Your task to perform on an android device: Go to wifi settings Image 0: 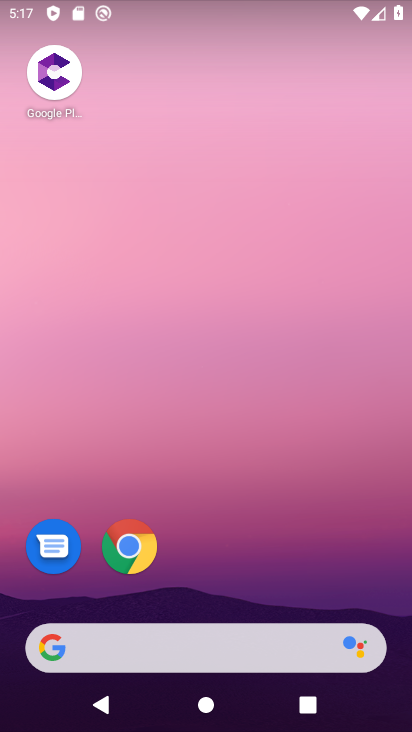
Step 0: drag from (285, 588) to (283, 464)
Your task to perform on an android device: Go to wifi settings Image 1: 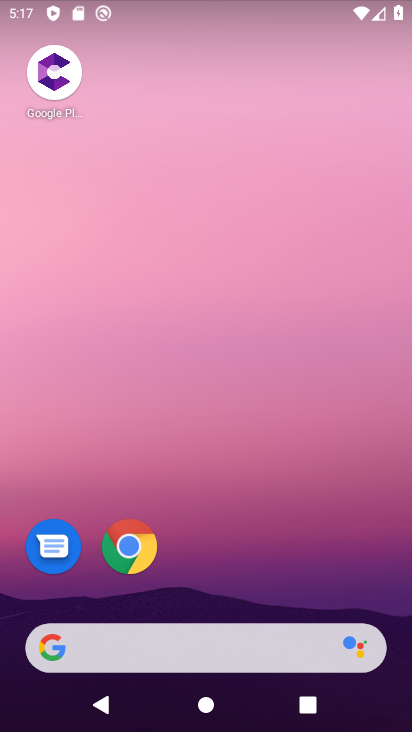
Step 1: drag from (258, 543) to (269, 68)
Your task to perform on an android device: Go to wifi settings Image 2: 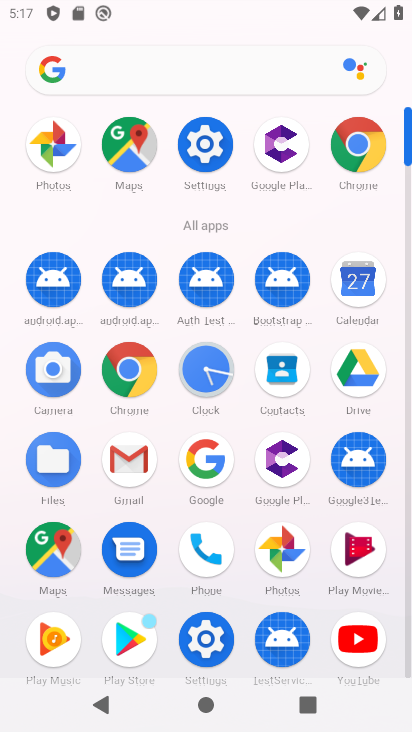
Step 2: click (220, 137)
Your task to perform on an android device: Go to wifi settings Image 3: 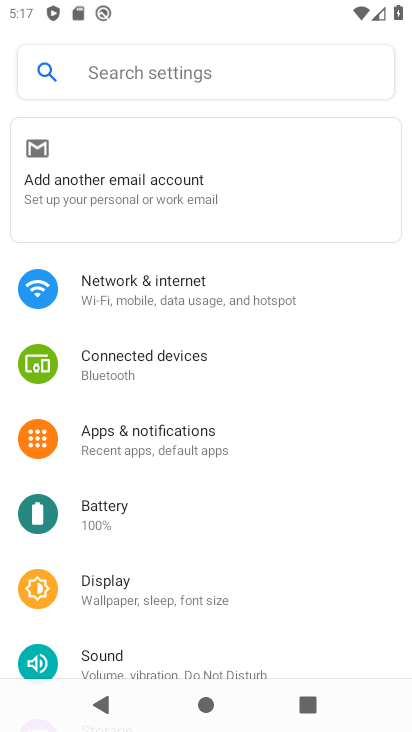
Step 3: click (167, 311)
Your task to perform on an android device: Go to wifi settings Image 4: 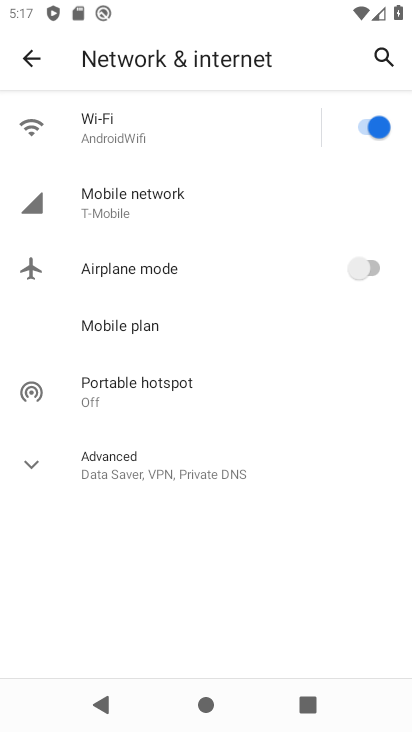
Step 4: click (140, 122)
Your task to perform on an android device: Go to wifi settings Image 5: 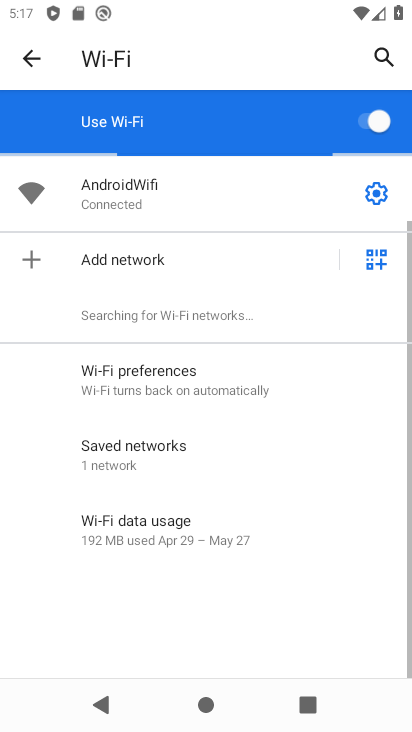
Step 5: task complete